Your task to perform on an android device: stop showing notifications on the lock screen Image 0: 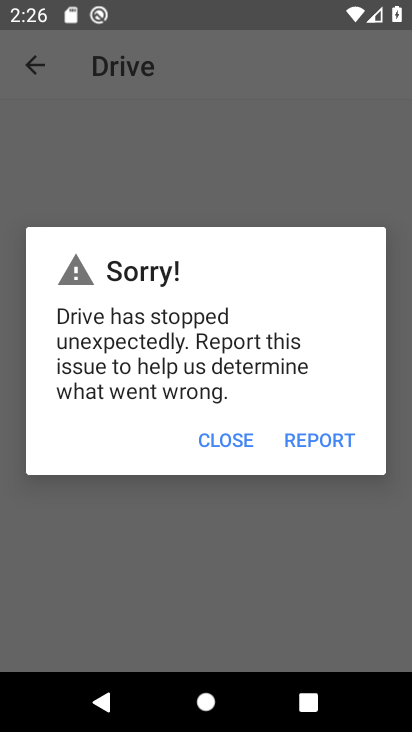
Step 0: press home button
Your task to perform on an android device: stop showing notifications on the lock screen Image 1: 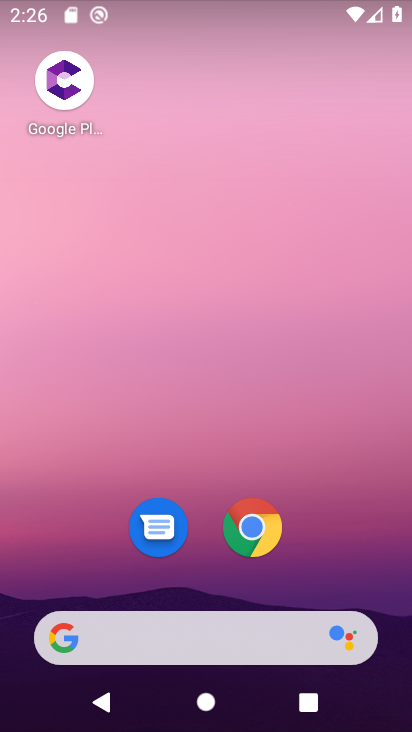
Step 1: drag from (348, 585) to (382, 4)
Your task to perform on an android device: stop showing notifications on the lock screen Image 2: 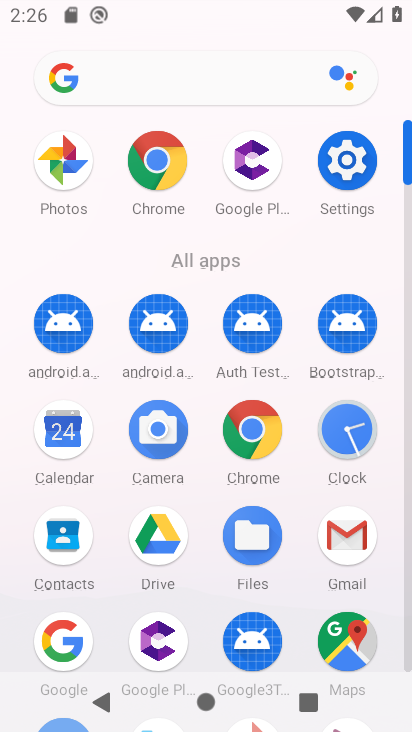
Step 2: click (346, 163)
Your task to perform on an android device: stop showing notifications on the lock screen Image 3: 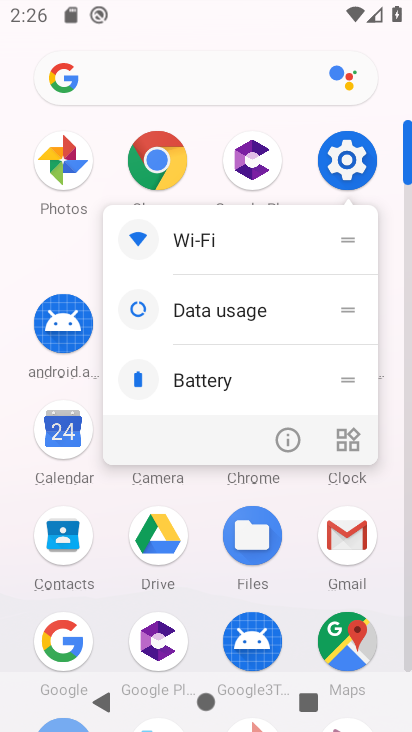
Step 3: click (346, 163)
Your task to perform on an android device: stop showing notifications on the lock screen Image 4: 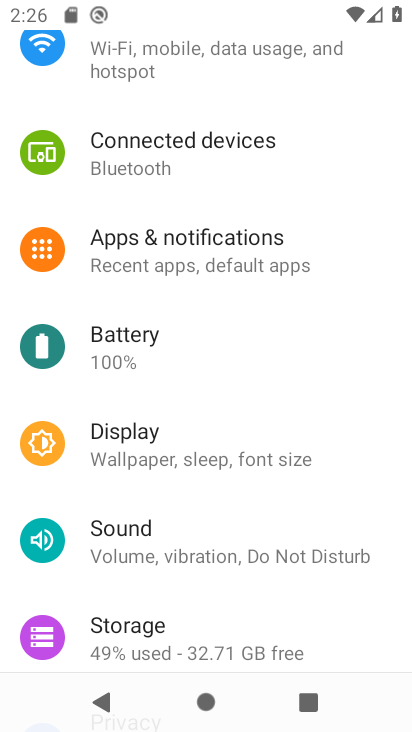
Step 4: click (156, 265)
Your task to perform on an android device: stop showing notifications on the lock screen Image 5: 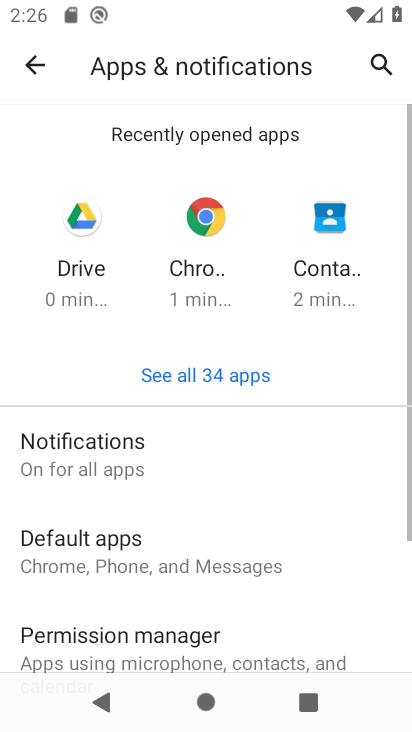
Step 5: click (72, 443)
Your task to perform on an android device: stop showing notifications on the lock screen Image 6: 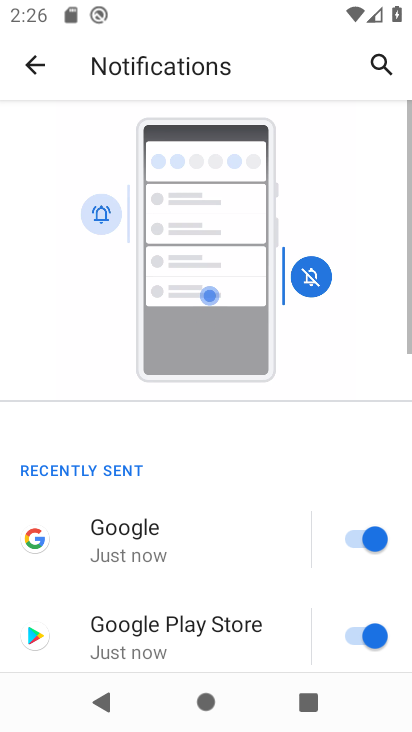
Step 6: drag from (148, 611) to (182, 236)
Your task to perform on an android device: stop showing notifications on the lock screen Image 7: 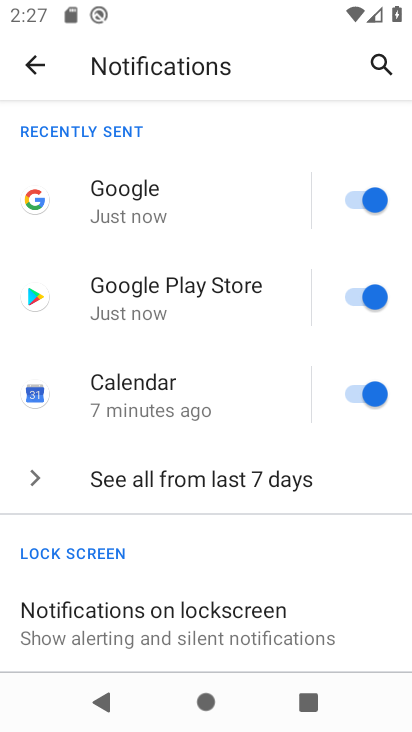
Step 7: drag from (174, 575) to (175, 296)
Your task to perform on an android device: stop showing notifications on the lock screen Image 8: 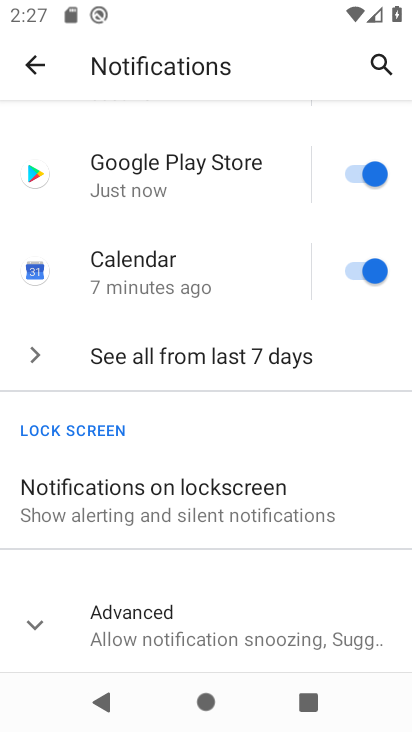
Step 8: click (92, 504)
Your task to perform on an android device: stop showing notifications on the lock screen Image 9: 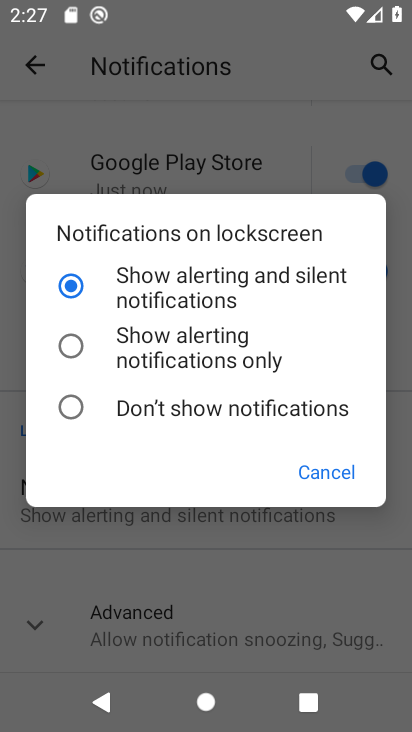
Step 9: click (73, 403)
Your task to perform on an android device: stop showing notifications on the lock screen Image 10: 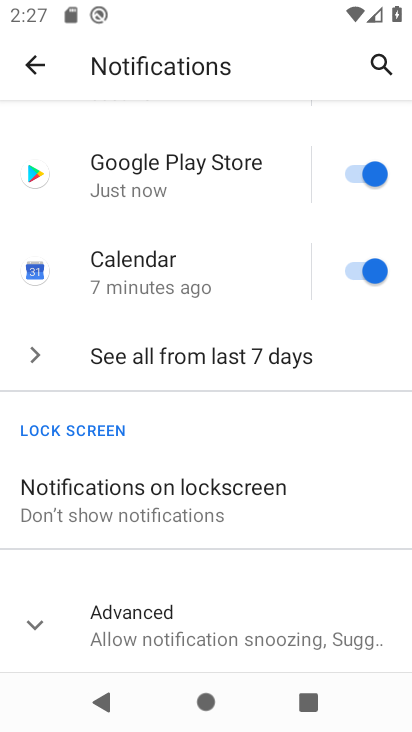
Step 10: task complete